Your task to perform on an android device: turn off notifications in google photos Image 0: 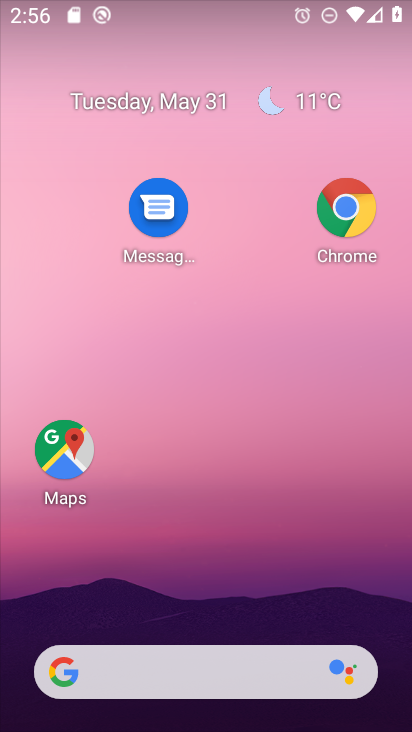
Step 0: click (284, 7)
Your task to perform on an android device: turn off notifications in google photos Image 1: 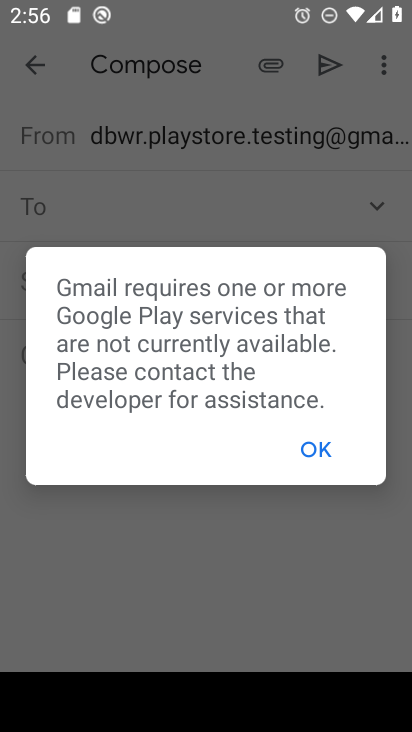
Step 1: press home button
Your task to perform on an android device: turn off notifications in google photos Image 2: 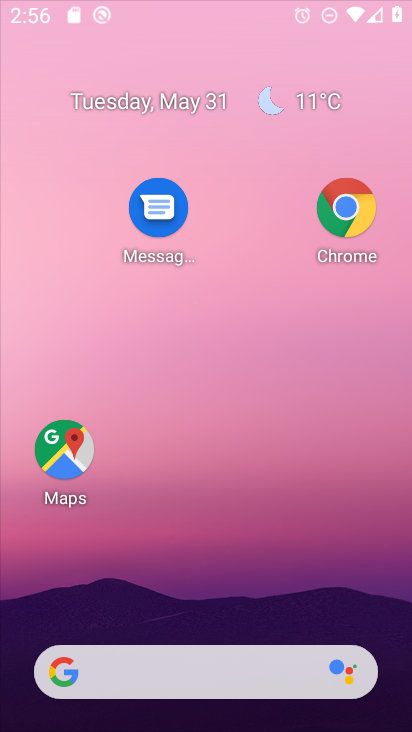
Step 2: drag from (236, 567) to (295, 103)
Your task to perform on an android device: turn off notifications in google photos Image 3: 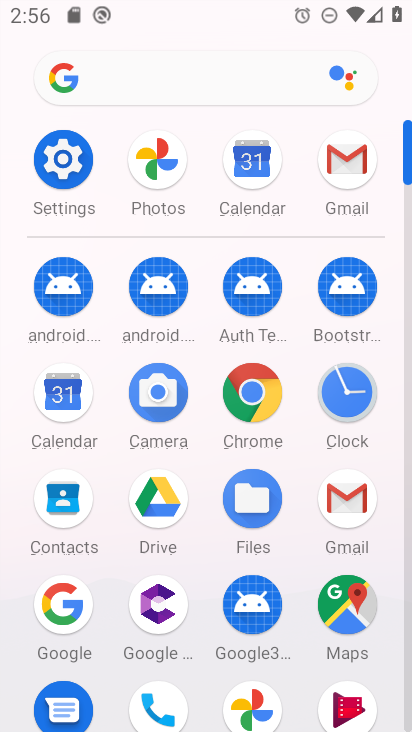
Step 3: click (252, 699)
Your task to perform on an android device: turn off notifications in google photos Image 4: 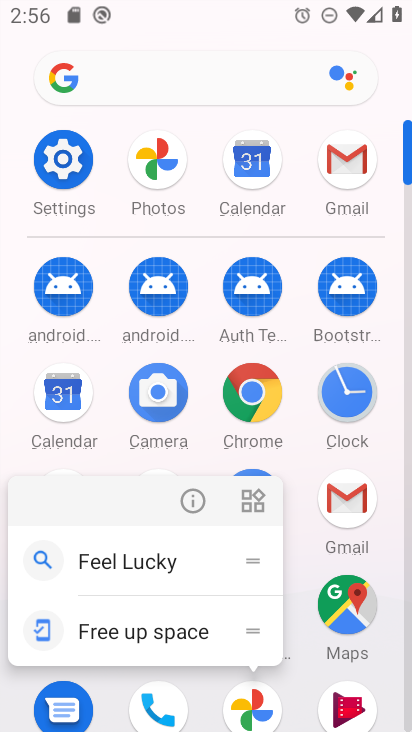
Step 4: click (197, 496)
Your task to perform on an android device: turn off notifications in google photos Image 5: 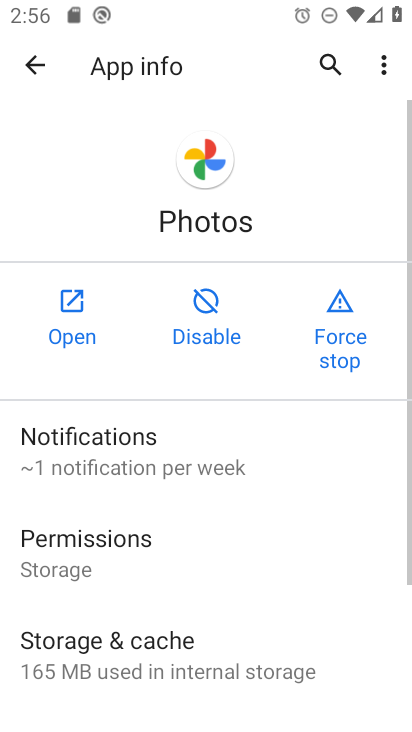
Step 5: click (62, 321)
Your task to perform on an android device: turn off notifications in google photos Image 6: 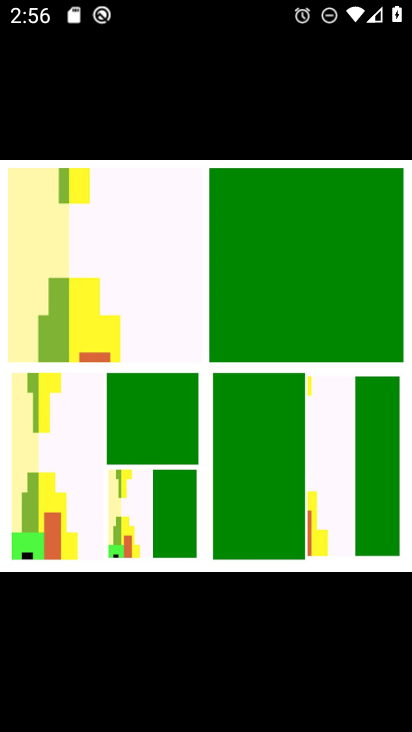
Step 6: drag from (311, 408) to (18, 471)
Your task to perform on an android device: turn off notifications in google photos Image 7: 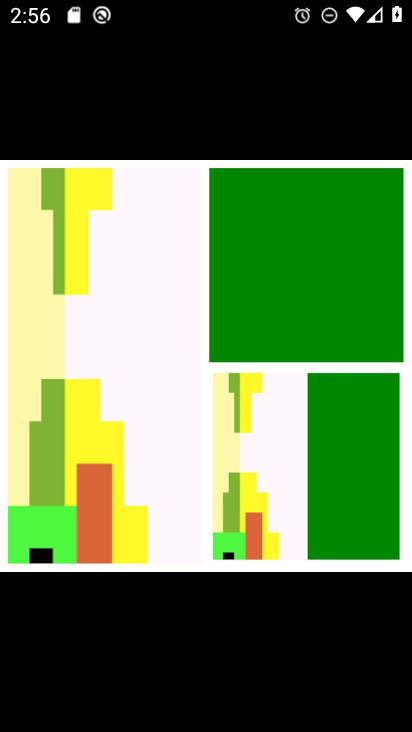
Step 7: press back button
Your task to perform on an android device: turn off notifications in google photos Image 8: 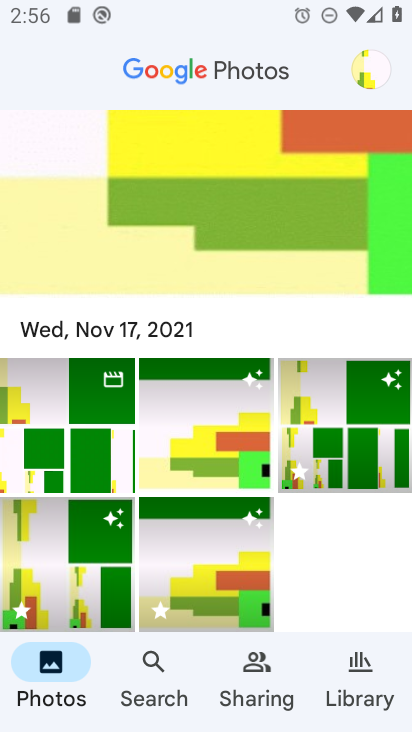
Step 8: click (367, 80)
Your task to perform on an android device: turn off notifications in google photos Image 9: 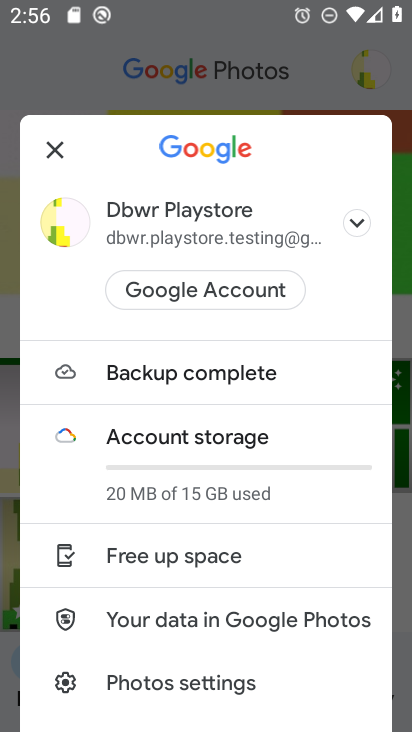
Step 9: click (167, 672)
Your task to perform on an android device: turn off notifications in google photos Image 10: 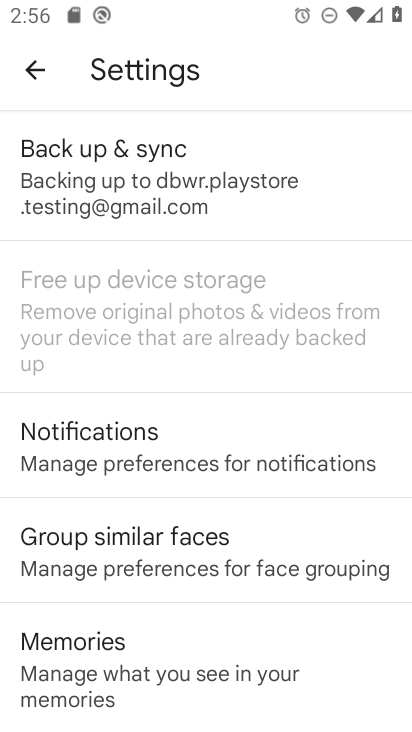
Step 10: drag from (153, 679) to (332, 239)
Your task to perform on an android device: turn off notifications in google photos Image 11: 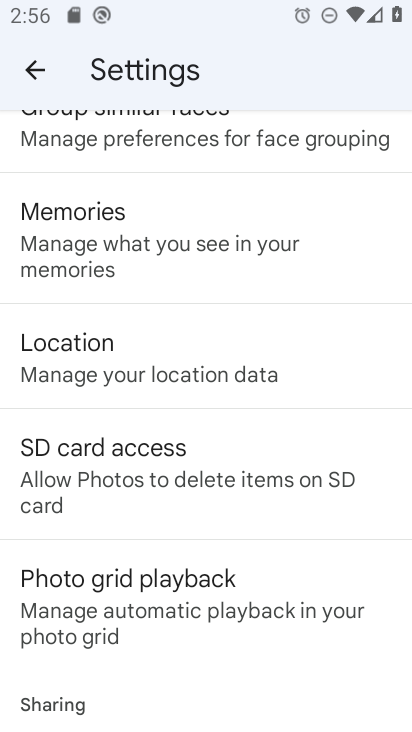
Step 11: drag from (188, 583) to (315, 161)
Your task to perform on an android device: turn off notifications in google photos Image 12: 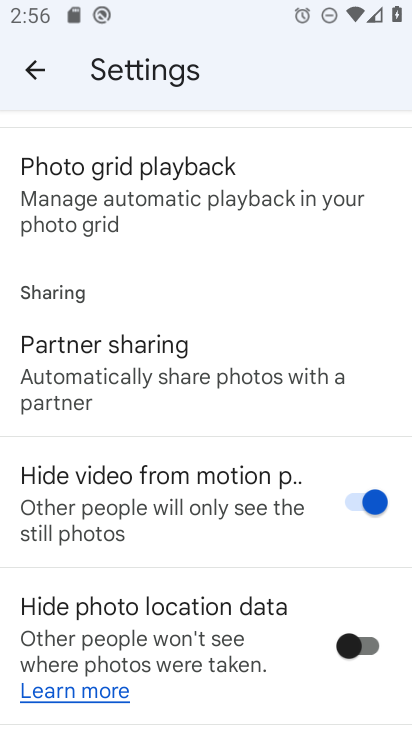
Step 12: drag from (187, 623) to (308, 119)
Your task to perform on an android device: turn off notifications in google photos Image 13: 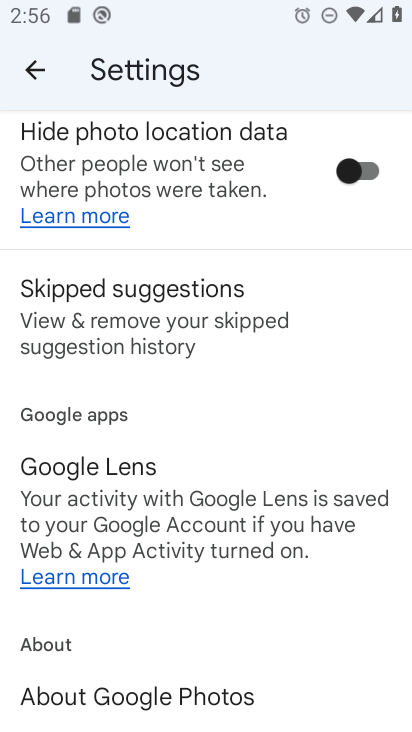
Step 13: drag from (212, 526) to (338, 195)
Your task to perform on an android device: turn off notifications in google photos Image 14: 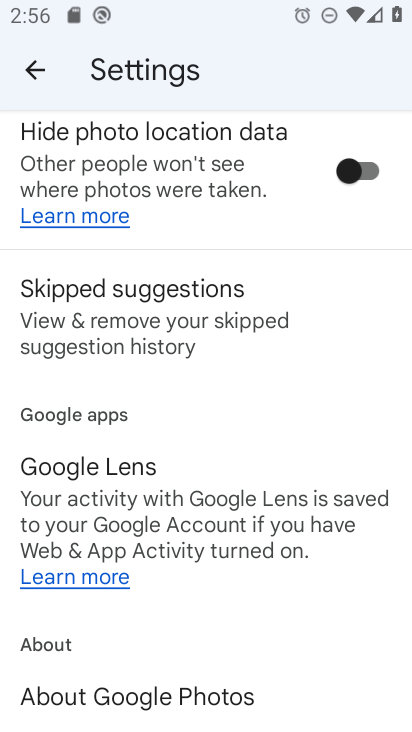
Step 14: drag from (248, 324) to (300, 715)
Your task to perform on an android device: turn off notifications in google photos Image 15: 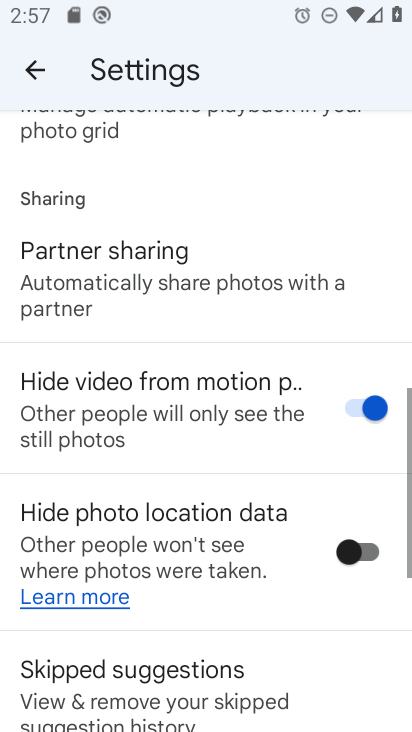
Step 15: drag from (190, 296) to (258, 727)
Your task to perform on an android device: turn off notifications in google photos Image 16: 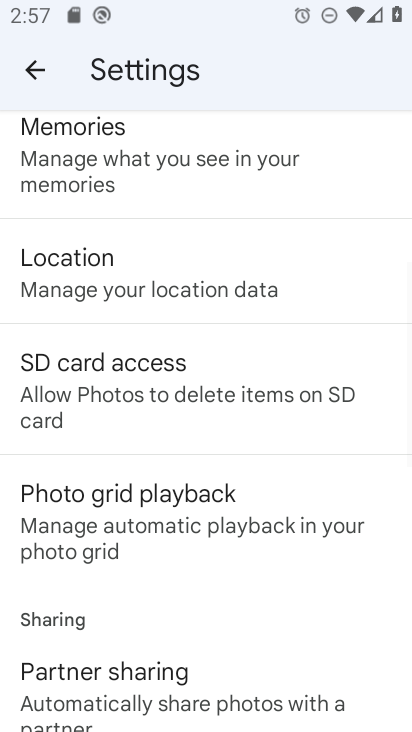
Step 16: drag from (173, 262) to (251, 720)
Your task to perform on an android device: turn off notifications in google photos Image 17: 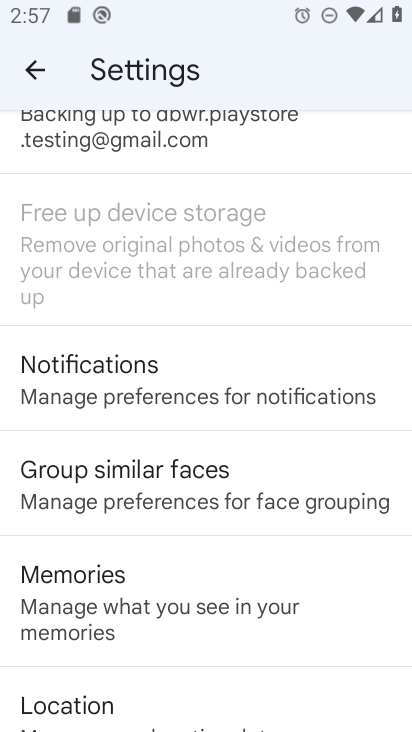
Step 17: click (154, 389)
Your task to perform on an android device: turn off notifications in google photos Image 18: 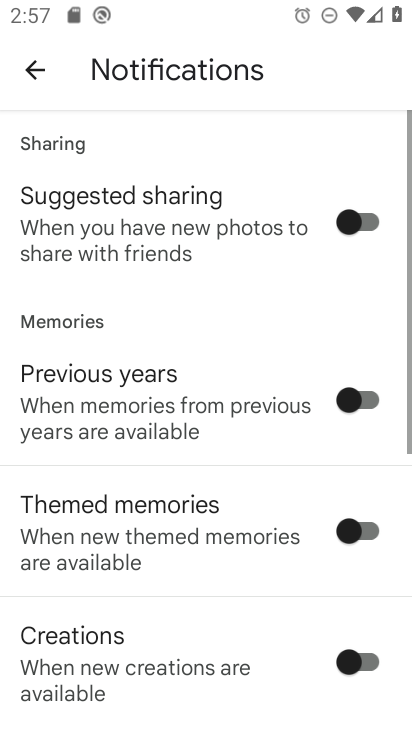
Step 18: drag from (215, 588) to (303, 122)
Your task to perform on an android device: turn off notifications in google photos Image 19: 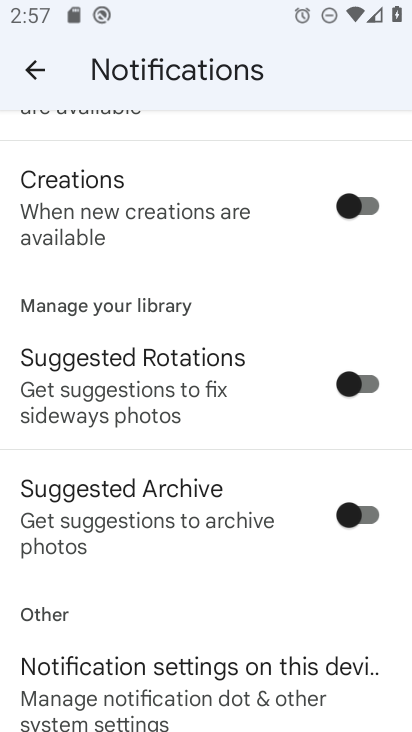
Step 19: drag from (177, 521) to (234, 281)
Your task to perform on an android device: turn off notifications in google photos Image 20: 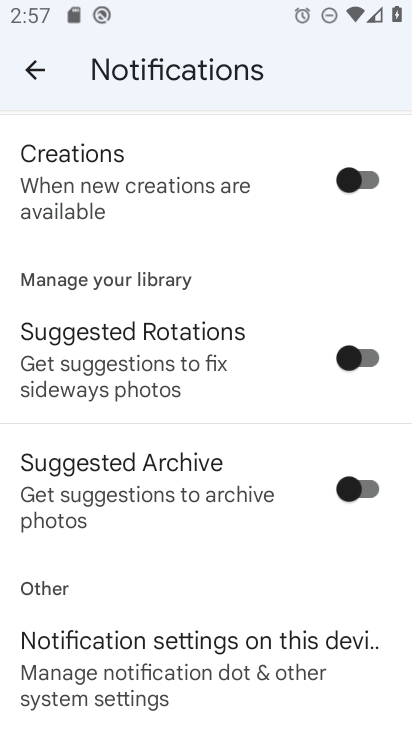
Step 20: click (172, 650)
Your task to perform on an android device: turn off notifications in google photos Image 21: 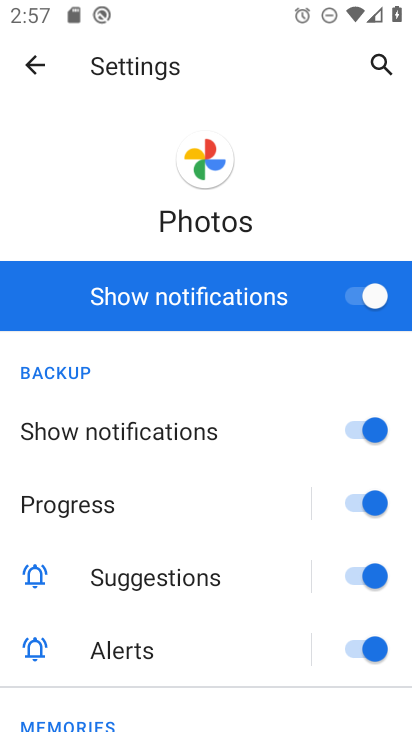
Step 21: drag from (203, 613) to (316, 307)
Your task to perform on an android device: turn off notifications in google photos Image 22: 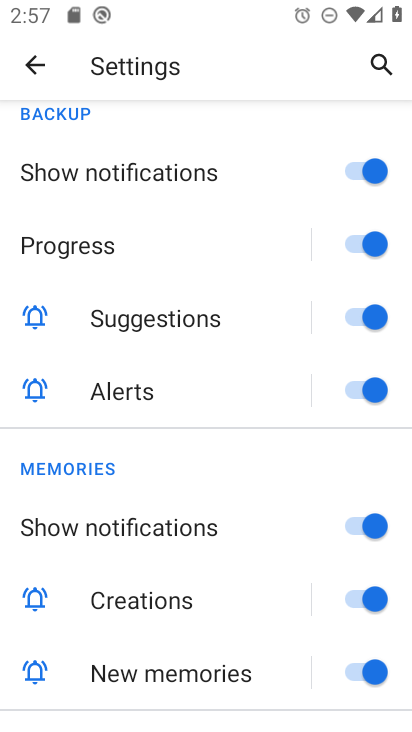
Step 22: drag from (236, 615) to (300, 284)
Your task to perform on an android device: turn off notifications in google photos Image 23: 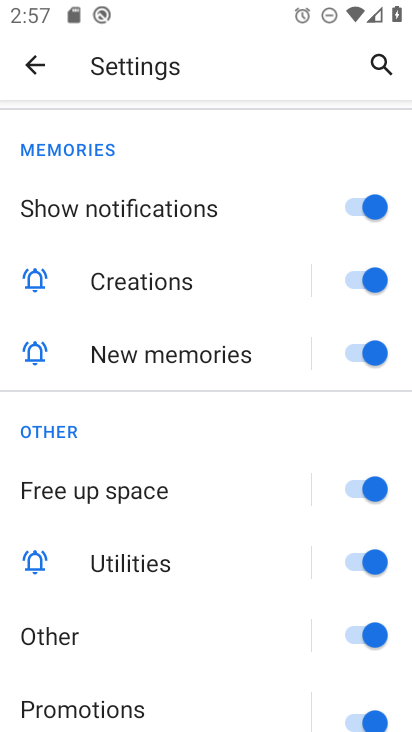
Step 23: drag from (241, 589) to (308, 310)
Your task to perform on an android device: turn off notifications in google photos Image 24: 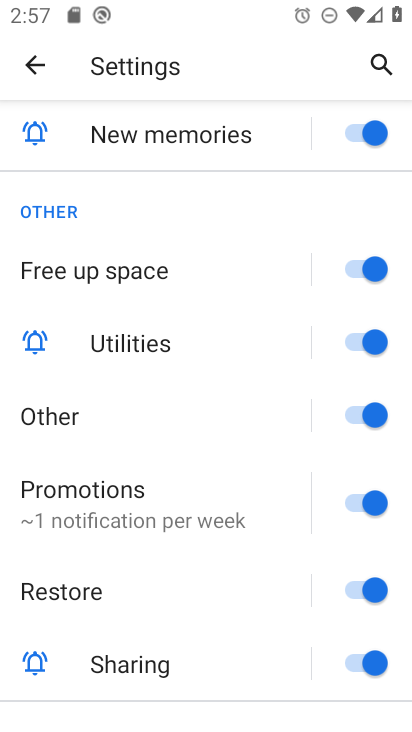
Step 24: drag from (168, 297) to (328, 716)
Your task to perform on an android device: turn off notifications in google photos Image 25: 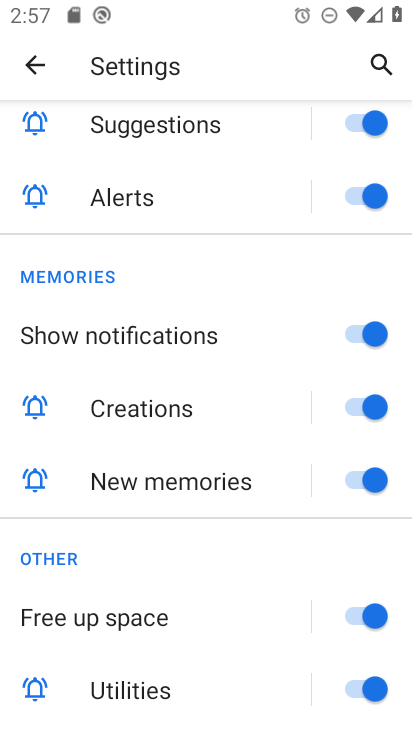
Step 25: drag from (246, 237) to (294, 716)
Your task to perform on an android device: turn off notifications in google photos Image 26: 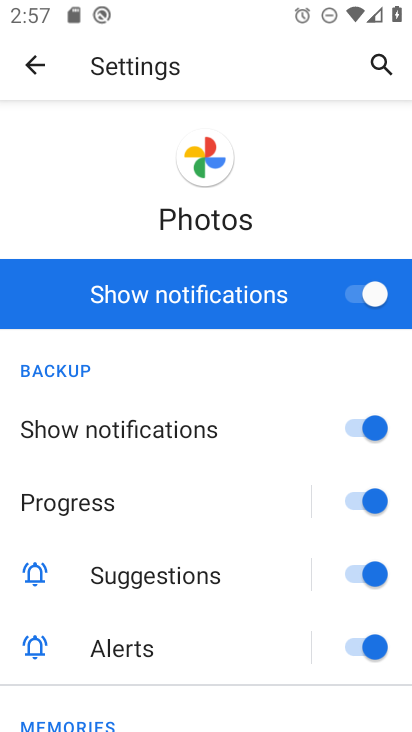
Step 26: click (367, 284)
Your task to perform on an android device: turn off notifications in google photos Image 27: 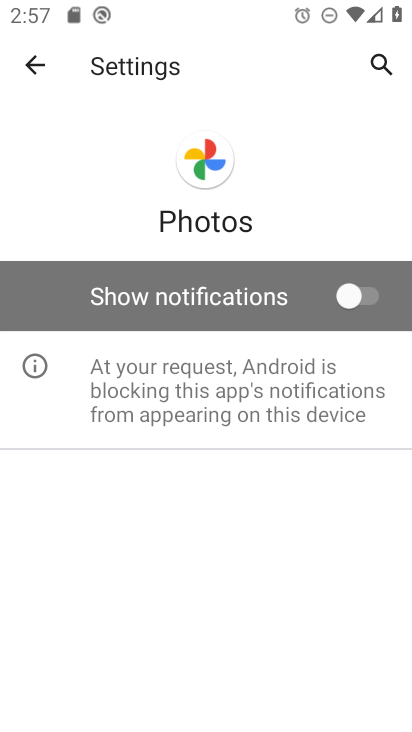
Step 27: task complete